Your task to perform on an android device: Turn off the flashlight Image 0: 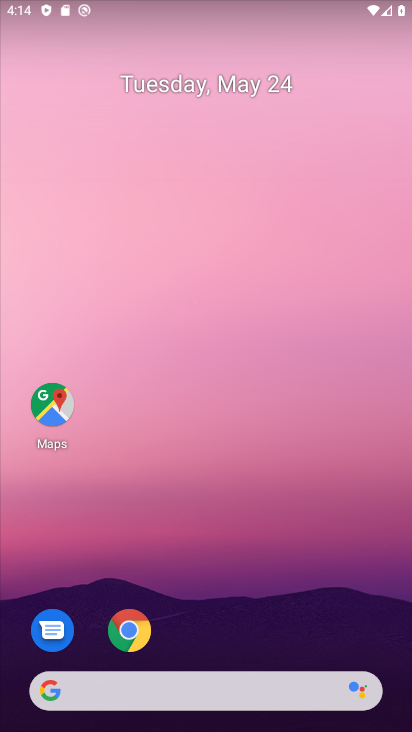
Step 0: drag from (208, 661) to (289, 25)
Your task to perform on an android device: Turn off the flashlight Image 1: 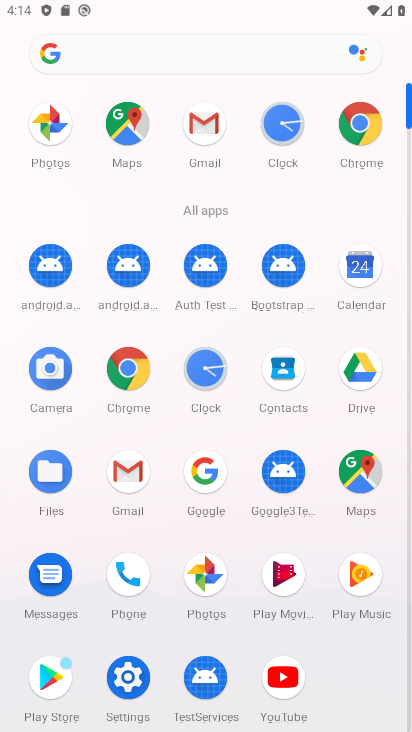
Step 1: click (111, 678)
Your task to perform on an android device: Turn off the flashlight Image 2: 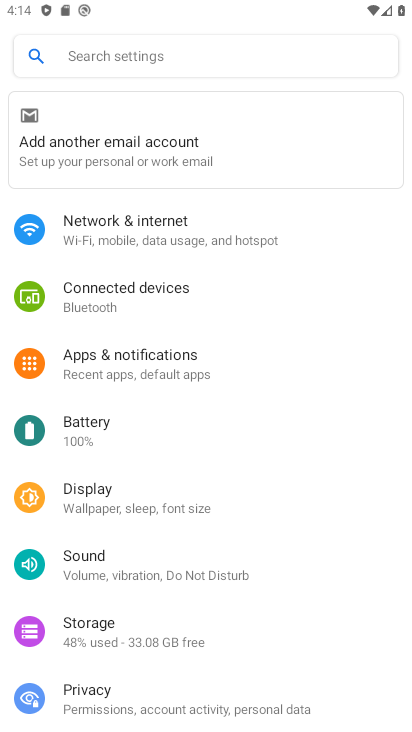
Step 2: task complete